Your task to perform on an android device: open app "VLC for Android" Image 0: 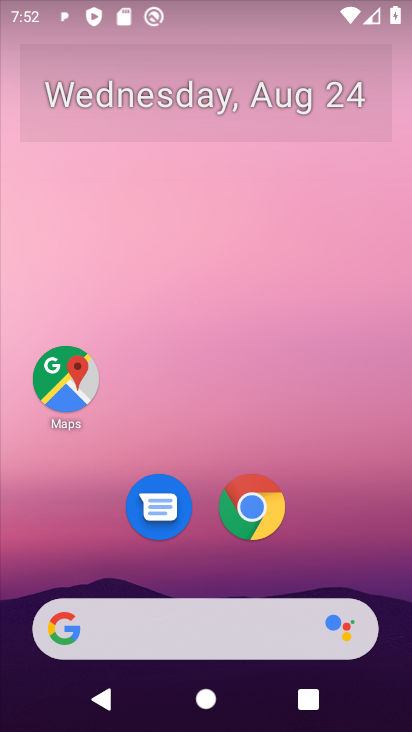
Step 0: press home button
Your task to perform on an android device: open app "VLC for Android" Image 1: 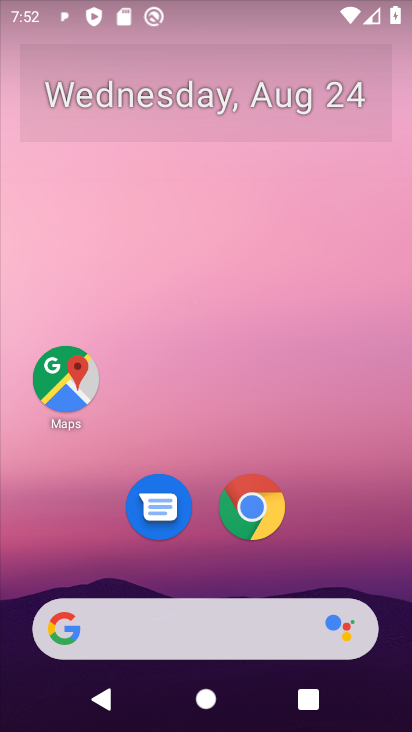
Step 1: drag from (373, 564) to (388, 85)
Your task to perform on an android device: open app "VLC for Android" Image 2: 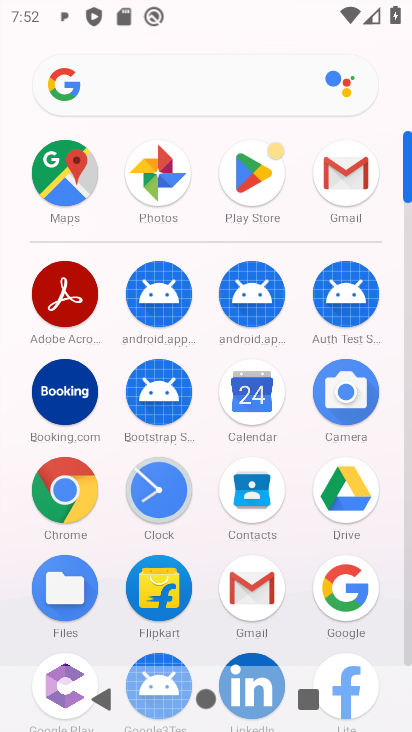
Step 2: click (258, 179)
Your task to perform on an android device: open app "VLC for Android" Image 3: 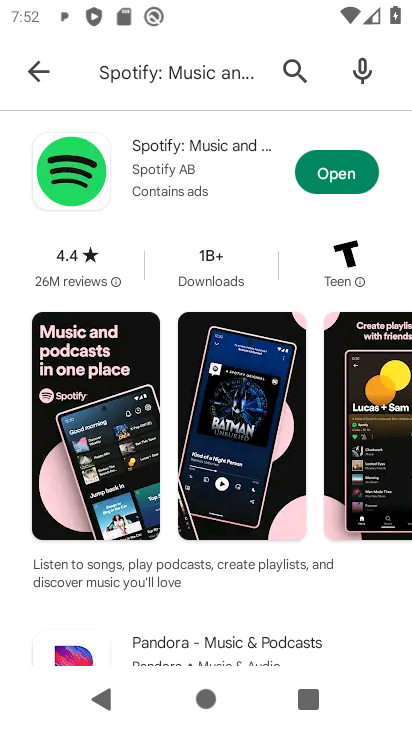
Step 3: press back button
Your task to perform on an android device: open app "VLC for Android" Image 4: 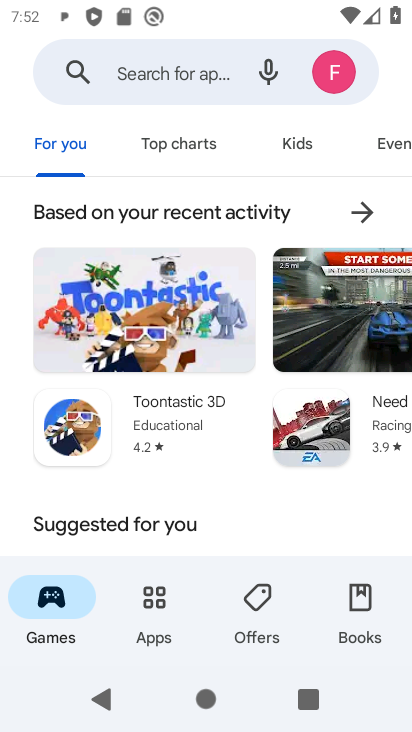
Step 4: click (178, 73)
Your task to perform on an android device: open app "VLC for Android" Image 5: 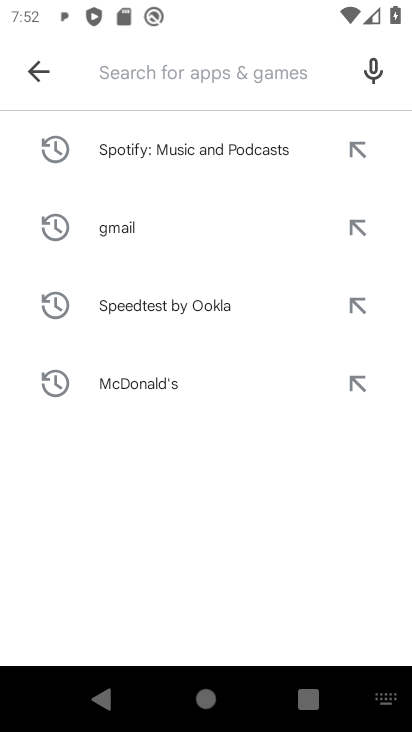
Step 5: type "VLC for Android"
Your task to perform on an android device: open app "VLC for Android" Image 6: 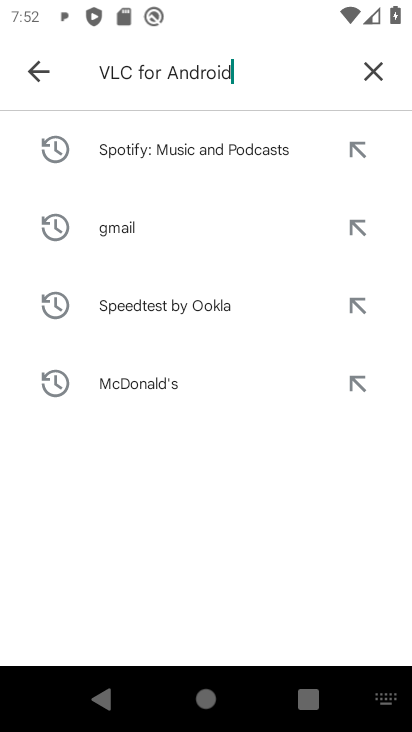
Step 6: press enter
Your task to perform on an android device: open app "VLC for Android" Image 7: 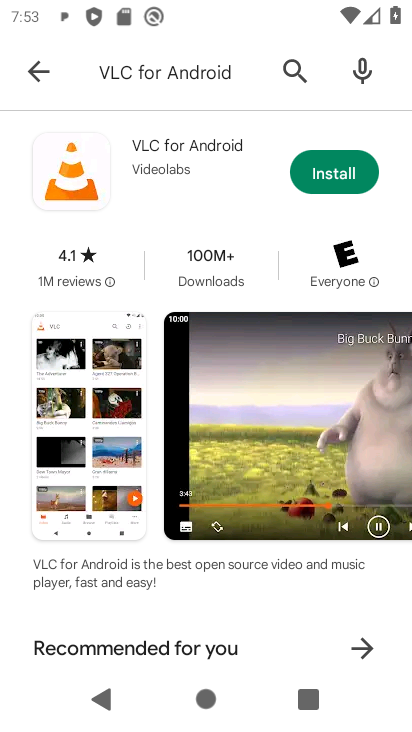
Step 7: task complete